Your task to perform on an android device: Go to Wikipedia Image 0: 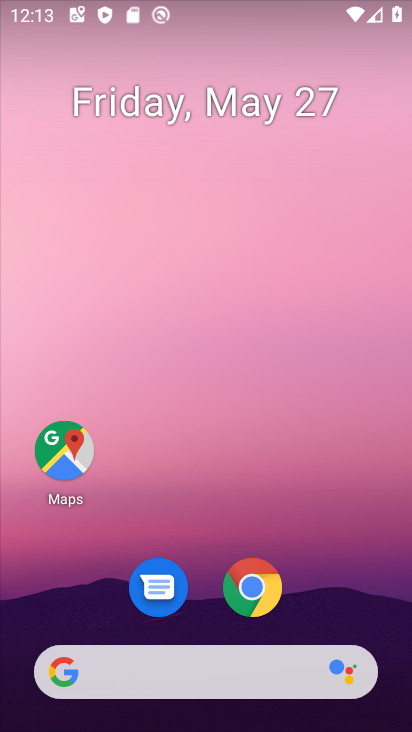
Step 0: click (263, 591)
Your task to perform on an android device: Go to Wikipedia Image 1: 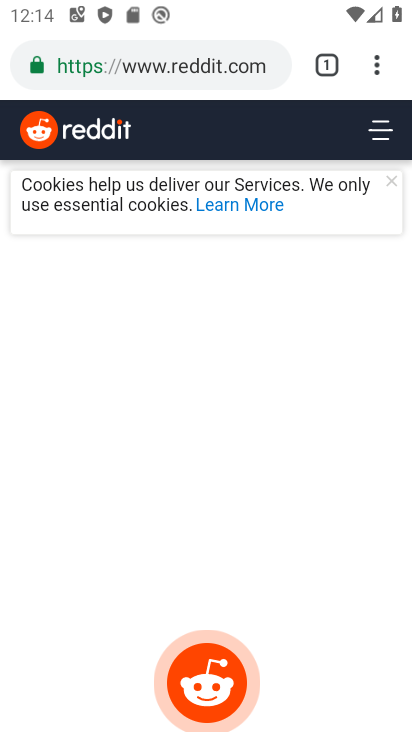
Step 1: click (324, 66)
Your task to perform on an android device: Go to Wikipedia Image 2: 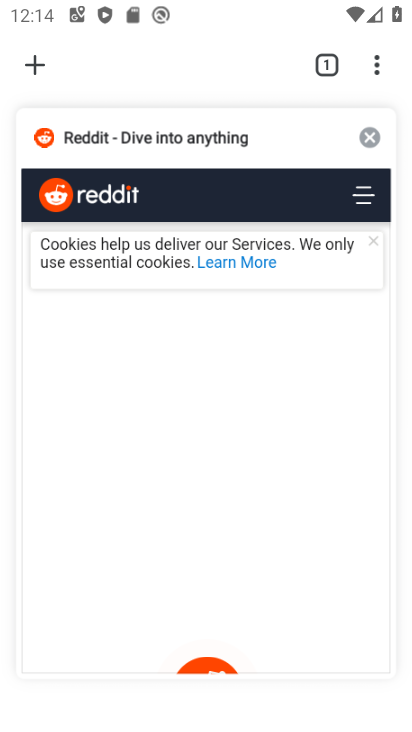
Step 2: click (364, 132)
Your task to perform on an android device: Go to Wikipedia Image 3: 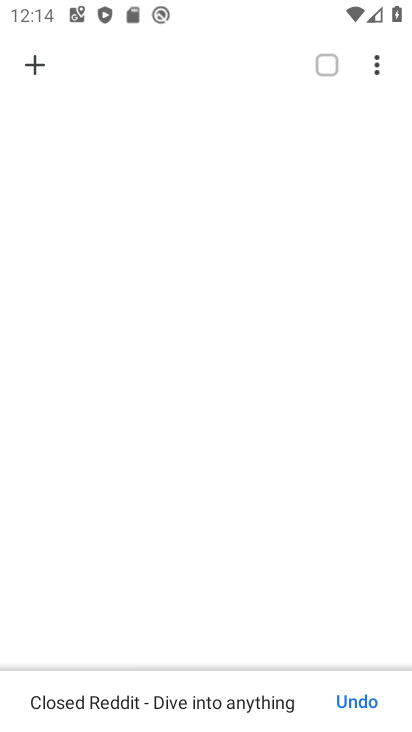
Step 3: click (36, 62)
Your task to perform on an android device: Go to Wikipedia Image 4: 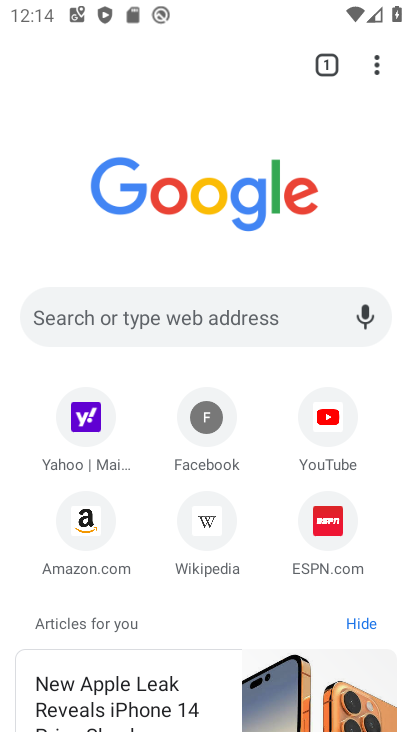
Step 4: click (214, 527)
Your task to perform on an android device: Go to Wikipedia Image 5: 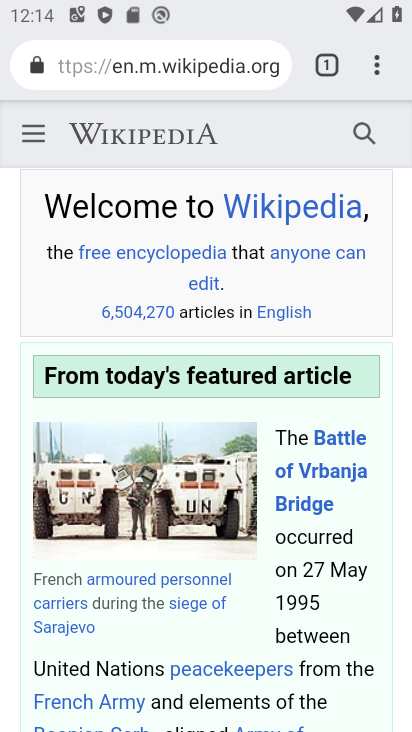
Step 5: task complete